Your task to perform on an android device: Go to battery settings Image 0: 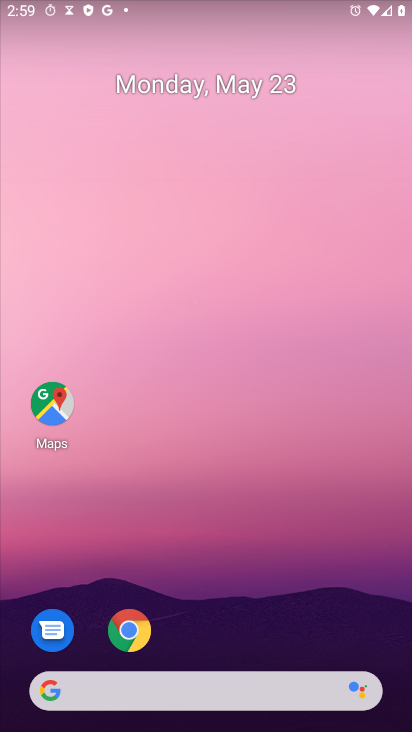
Step 0: drag from (296, 536) to (296, 25)
Your task to perform on an android device: Go to battery settings Image 1: 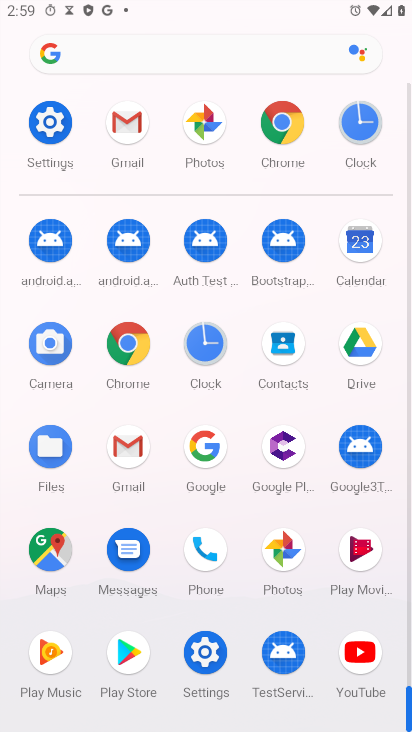
Step 1: click (40, 135)
Your task to perform on an android device: Go to battery settings Image 2: 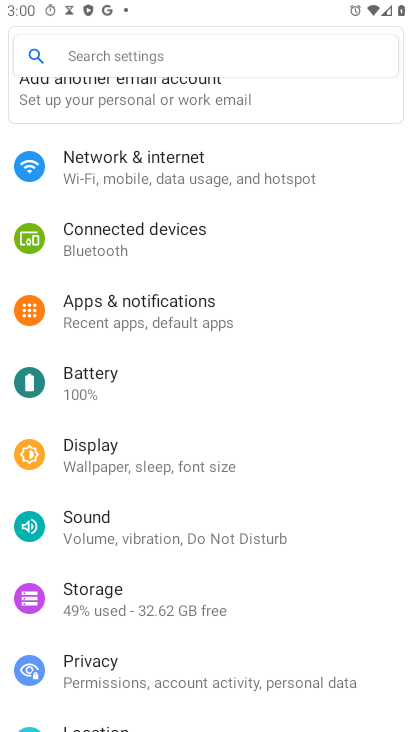
Step 2: click (104, 376)
Your task to perform on an android device: Go to battery settings Image 3: 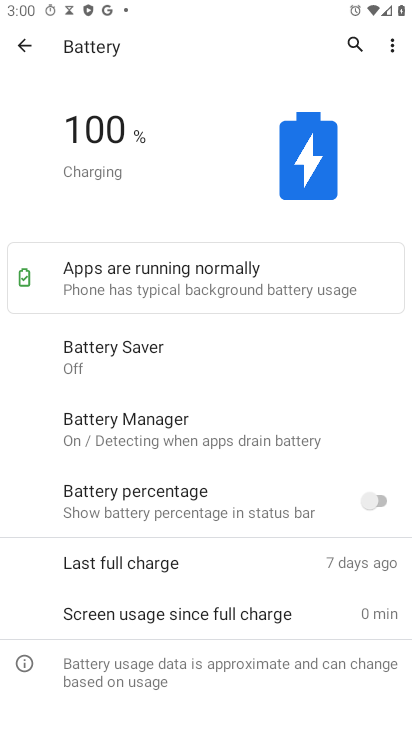
Step 3: task complete